Your task to perform on an android device: Search for Italian restaurants on Maps Image 0: 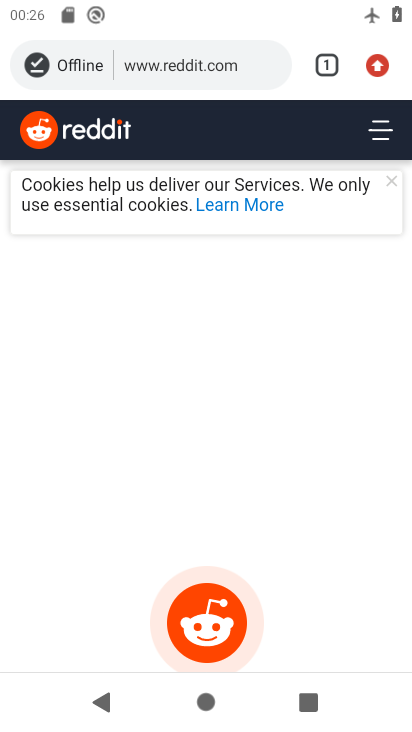
Step 0: press back button
Your task to perform on an android device: Search for Italian restaurants on Maps Image 1: 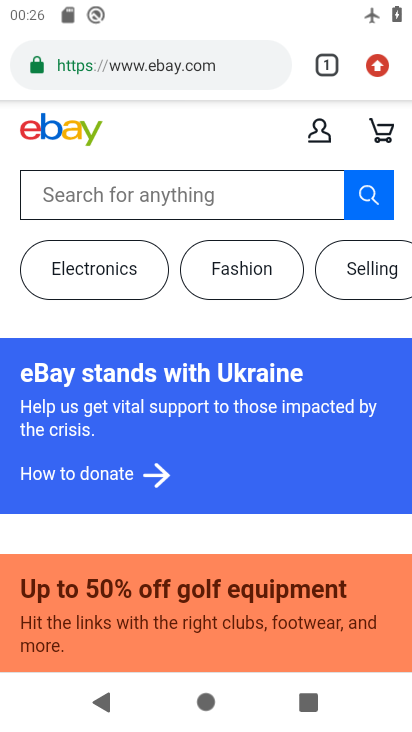
Step 1: press back button
Your task to perform on an android device: Search for Italian restaurants on Maps Image 2: 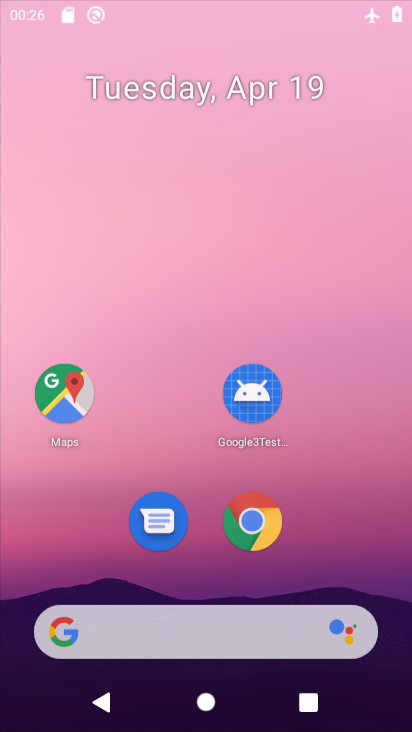
Step 2: press home button
Your task to perform on an android device: Search for Italian restaurants on Maps Image 3: 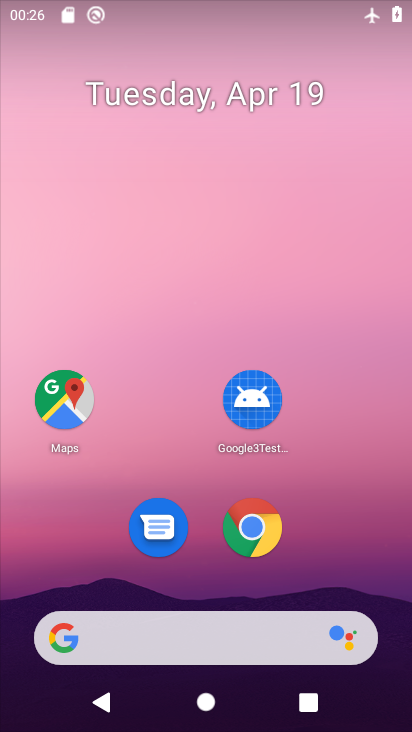
Step 3: click (63, 409)
Your task to perform on an android device: Search for Italian restaurants on Maps Image 4: 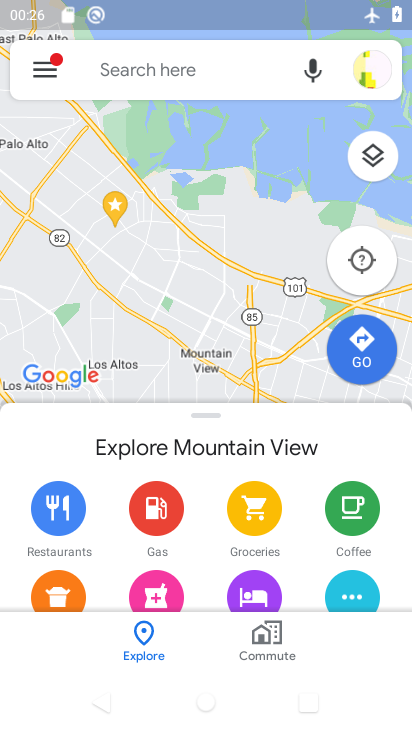
Step 4: click (147, 90)
Your task to perform on an android device: Search for Italian restaurants on Maps Image 5: 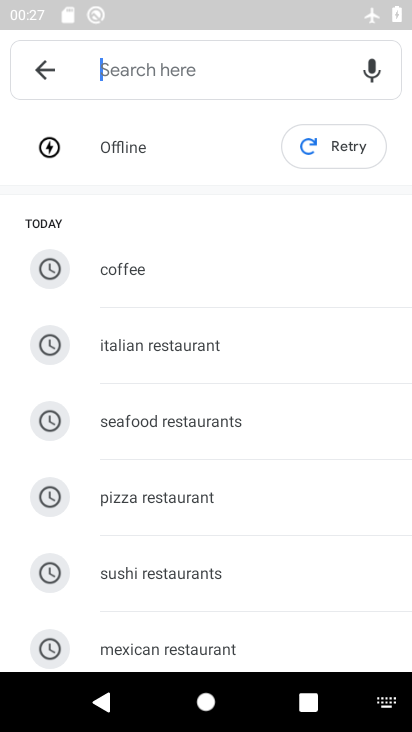
Step 5: type "italian restaurants"
Your task to perform on an android device: Search for Italian restaurants on Maps Image 6: 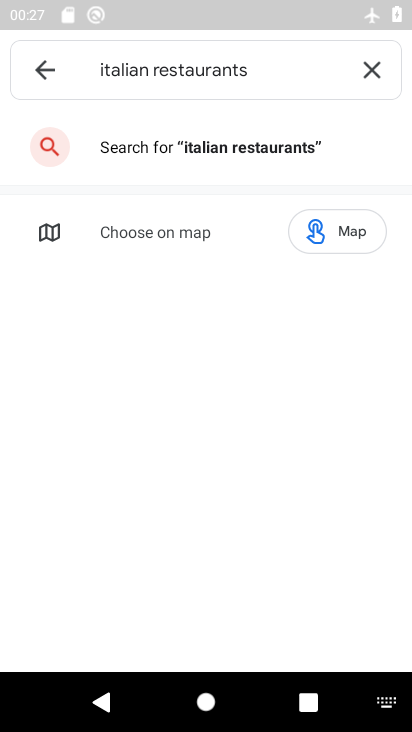
Step 6: click (163, 164)
Your task to perform on an android device: Search for Italian restaurants on Maps Image 7: 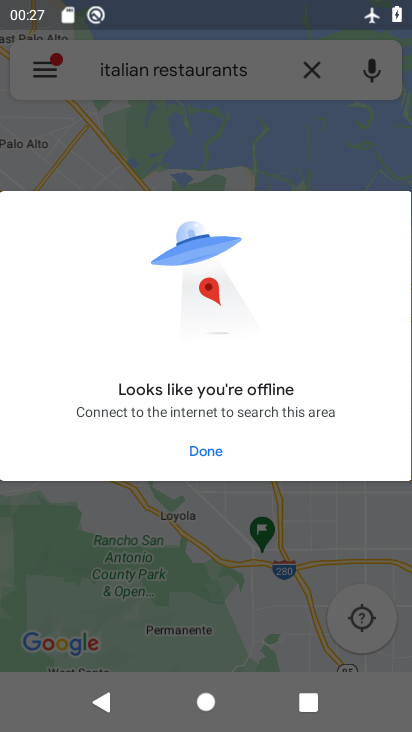
Step 7: task complete